Your task to perform on an android device: see sites visited before in the chrome app Image 0: 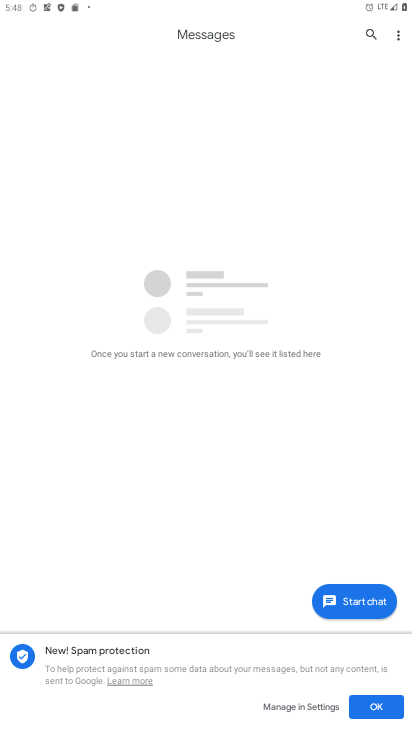
Step 0: press home button
Your task to perform on an android device: see sites visited before in the chrome app Image 1: 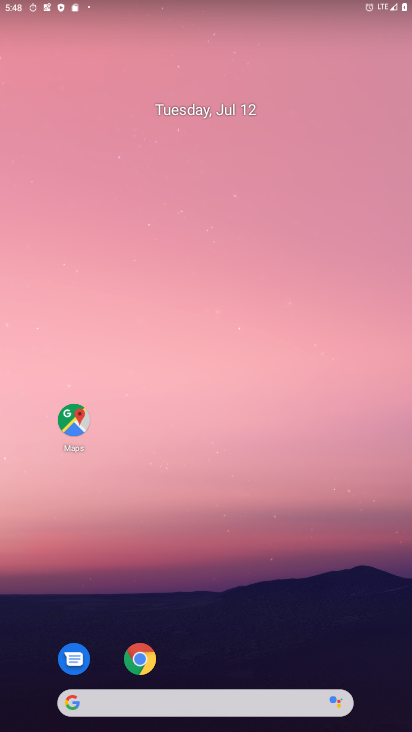
Step 1: press home button
Your task to perform on an android device: see sites visited before in the chrome app Image 2: 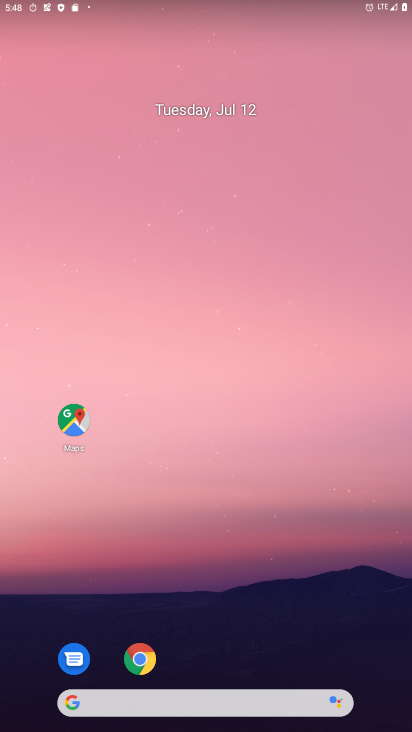
Step 2: click (141, 660)
Your task to perform on an android device: see sites visited before in the chrome app Image 3: 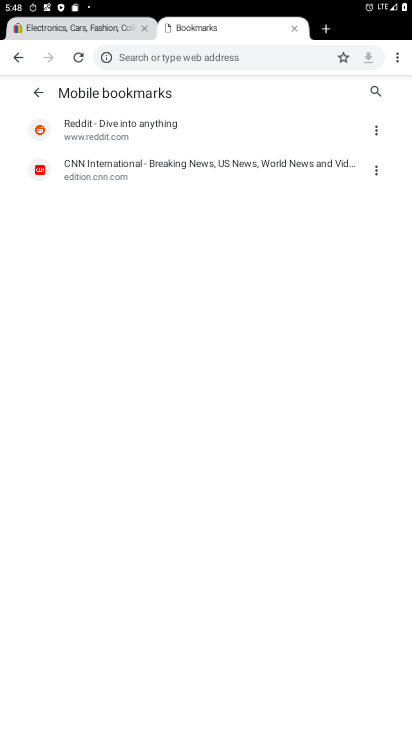
Step 3: click (395, 57)
Your task to perform on an android device: see sites visited before in the chrome app Image 4: 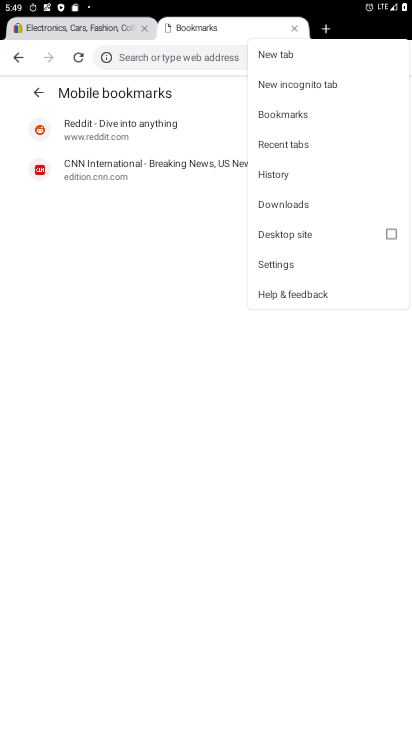
Step 4: click (281, 175)
Your task to perform on an android device: see sites visited before in the chrome app Image 5: 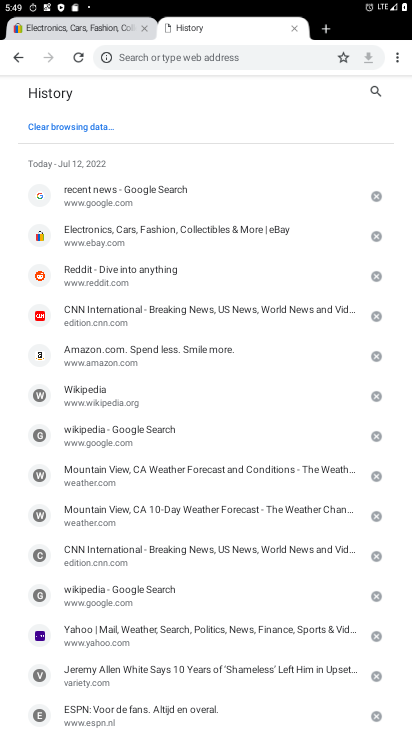
Step 5: task complete